Your task to perform on an android device: Open ESPN.com Image 0: 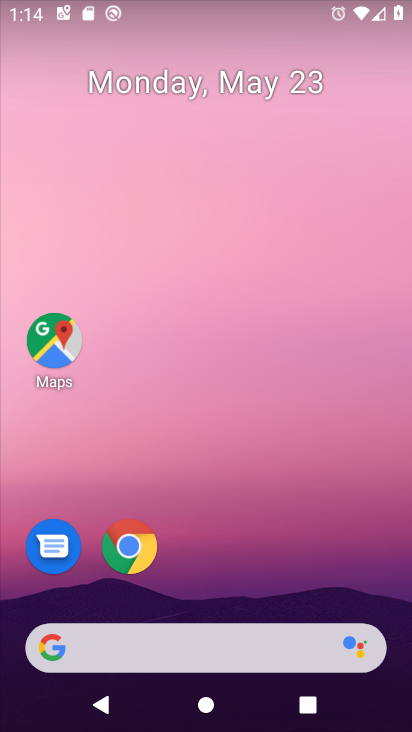
Step 0: click (141, 554)
Your task to perform on an android device: Open ESPN.com Image 1: 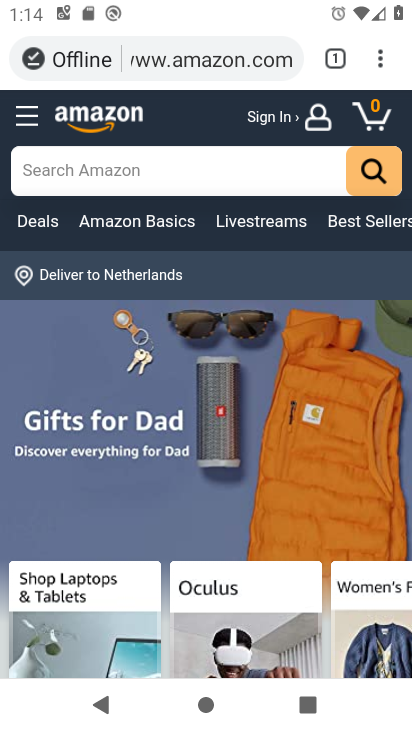
Step 1: click (233, 65)
Your task to perform on an android device: Open ESPN.com Image 2: 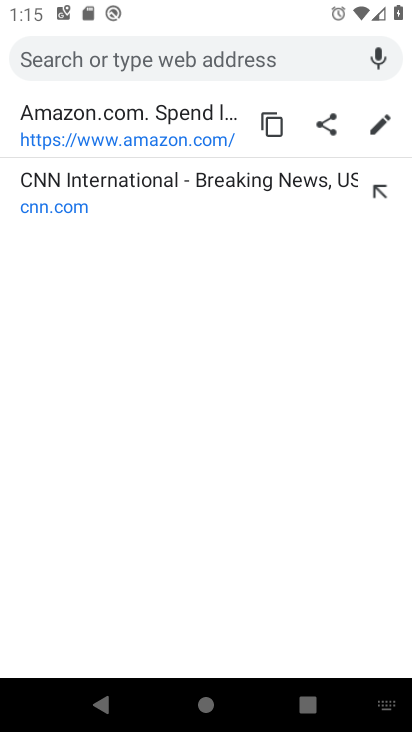
Step 2: type "espn"
Your task to perform on an android device: Open ESPN.com Image 3: 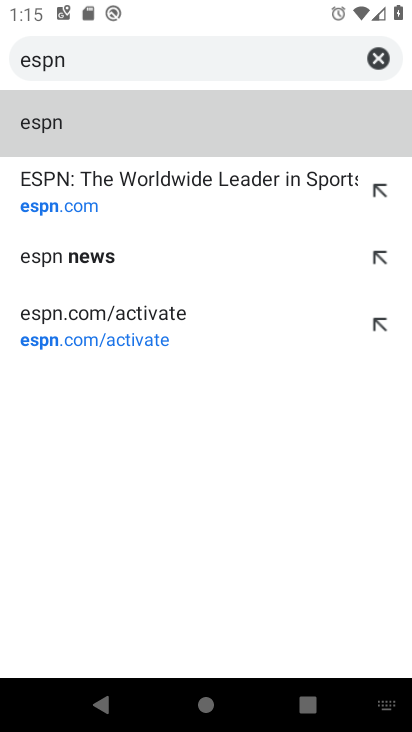
Step 3: click (243, 193)
Your task to perform on an android device: Open ESPN.com Image 4: 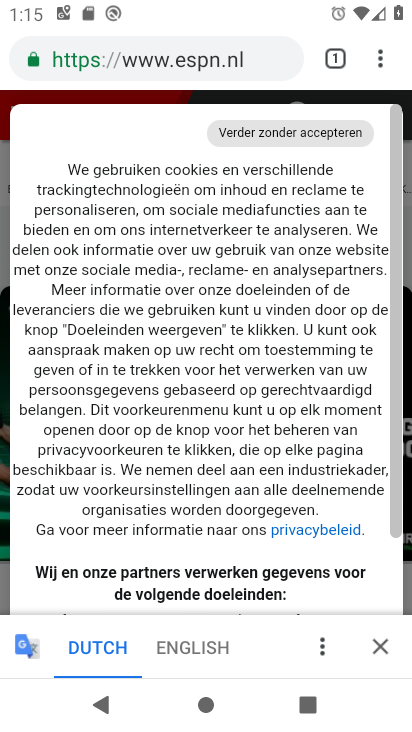
Step 4: task complete